Your task to perform on an android device: remove spam from my inbox in the gmail app Image 0: 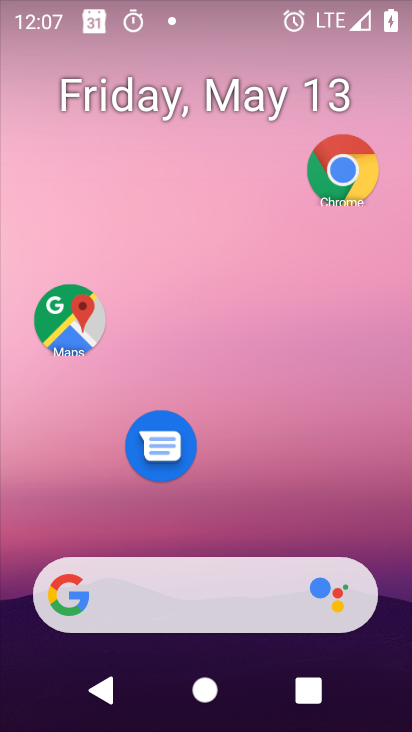
Step 0: drag from (206, 609) to (270, 20)
Your task to perform on an android device: remove spam from my inbox in the gmail app Image 1: 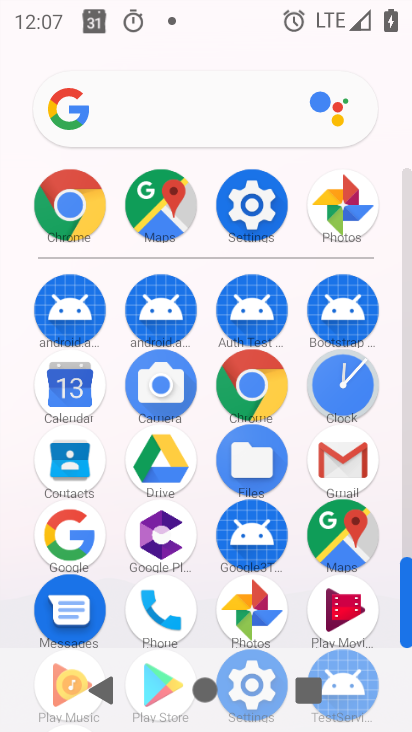
Step 1: click (350, 462)
Your task to perform on an android device: remove spam from my inbox in the gmail app Image 2: 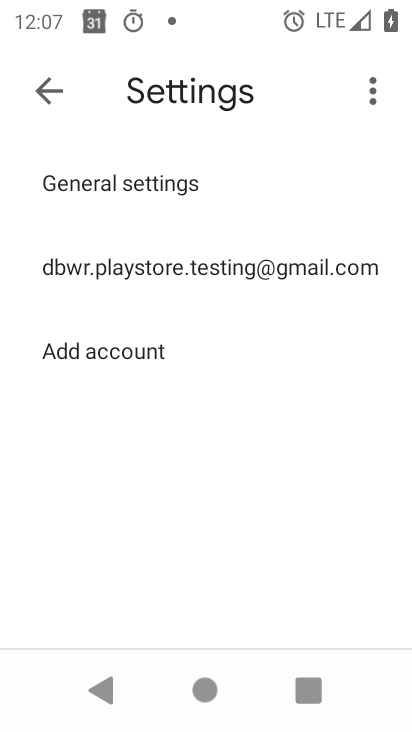
Step 2: click (254, 282)
Your task to perform on an android device: remove spam from my inbox in the gmail app Image 3: 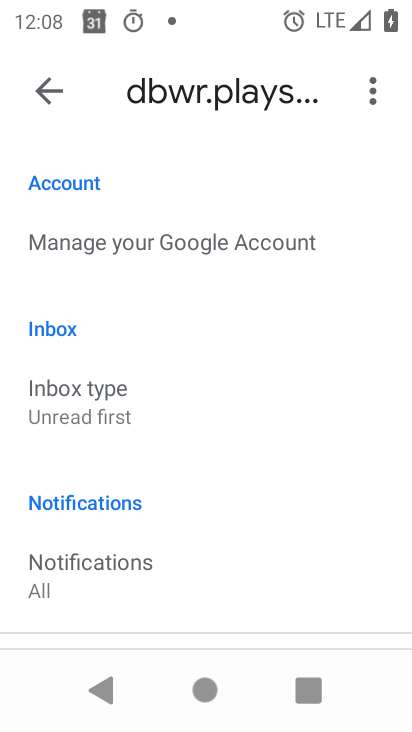
Step 3: drag from (85, 626) to (90, 113)
Your task to perform on an android device: remove spam from my inbox in the gmail app Image 4: 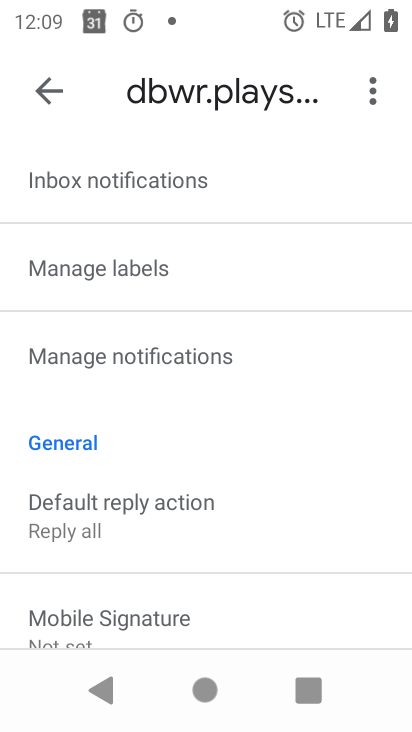
Step 4: drag from (119, 282) to (85, 719)
Your task to perform on an android device: remove spam from my inbox in the gmail app Image 5: 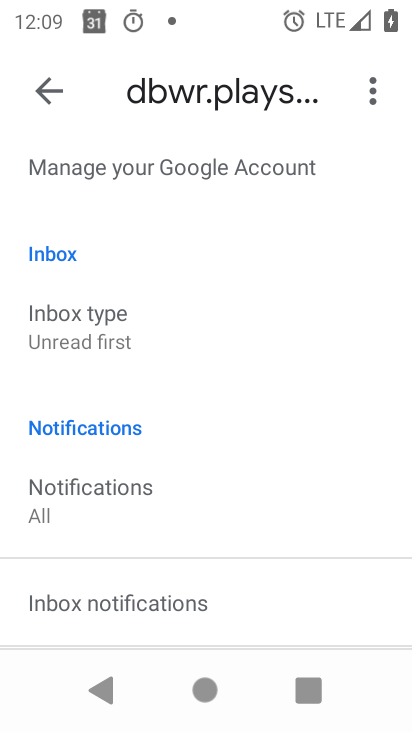
Step 5: press back button
Your task to perform on an android device: remove spam from my inbox in the gmail app Image 6: 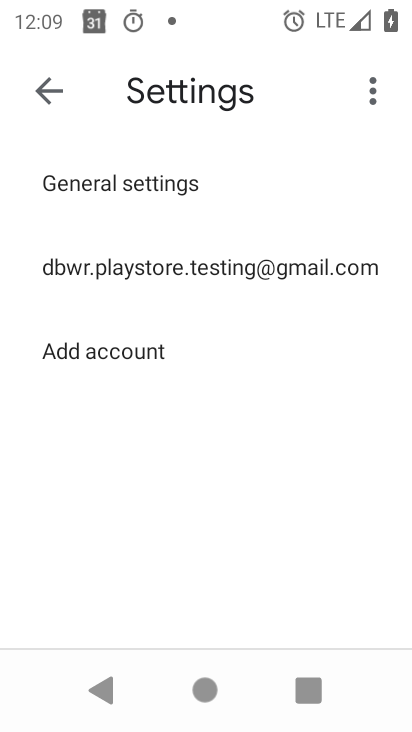
Step 6: press back button
Your task to perform on an android device: remove spam from my inbox in the gmail app Image 7: 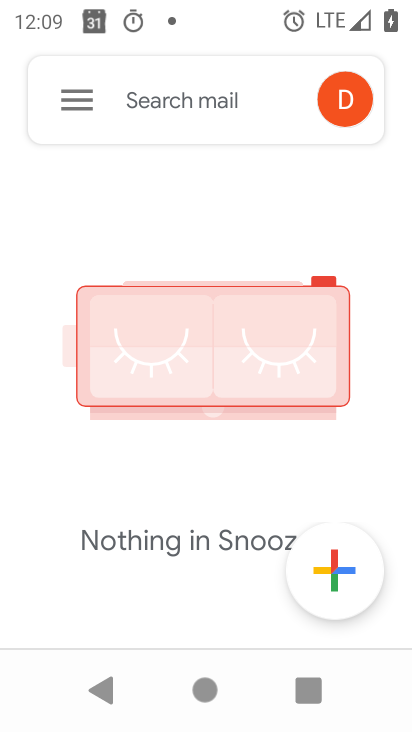
Step 7: click (87, 94)
Your task to perform on an android device: remove spam from my inbox in the gmail app Image 8: 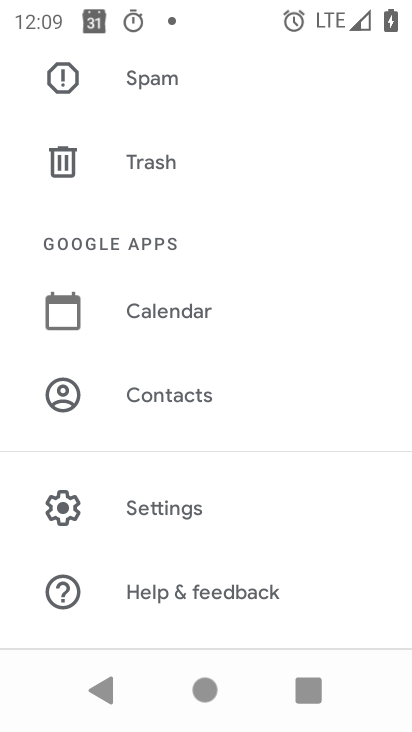
Step 8: drag from (223, 288) to (238, 666)
Your task to perform on an android device: remove spam from my inbox in the gmail app Image 9: 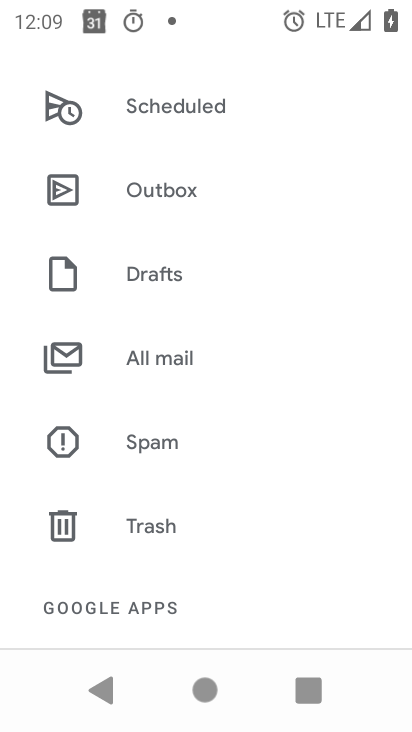
Step 9: click (182, 438)
Your task to perform on an android device: remove spam from my inbox in the gmail app Image 10: 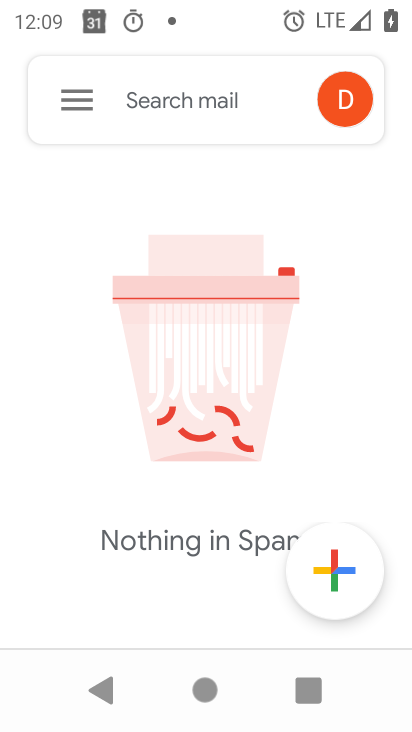
Step 10: task complete